Your task to perform on an android device: turn off notifications in google photos Image 0: 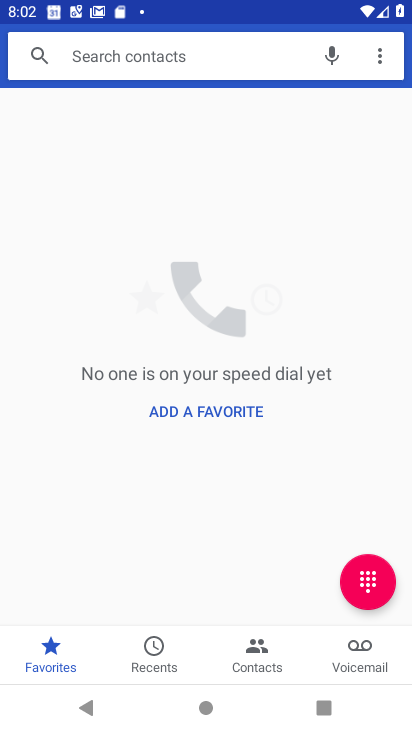
Step 0: drag from (222, 414) to (290, 196)
Your task to perform on an android device: turn off notifications in google photos Image 1: 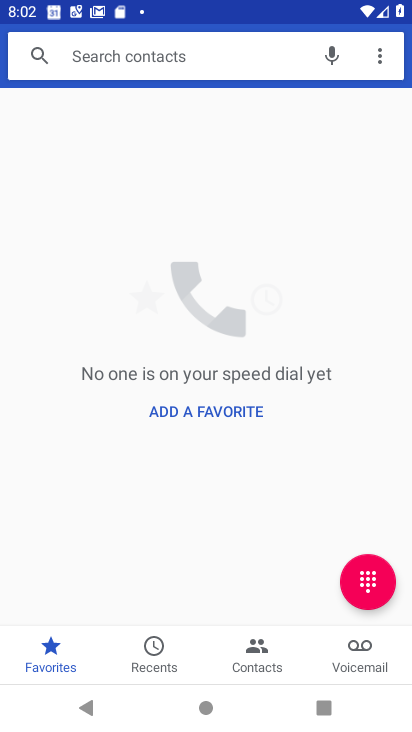
Step 1: press home button
Your task to perform on an android device: turn off notifications in google photos Image 2: 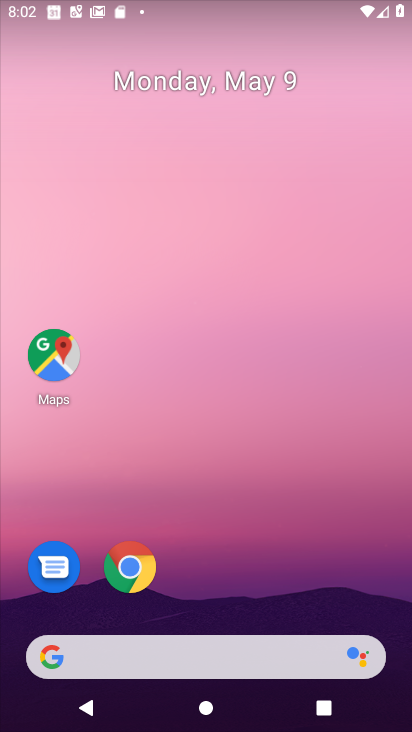
Step 2: drag from (202, 598) to (278, 253)
Your task to perform on an android device: turn off notifications in google photos Image 3: 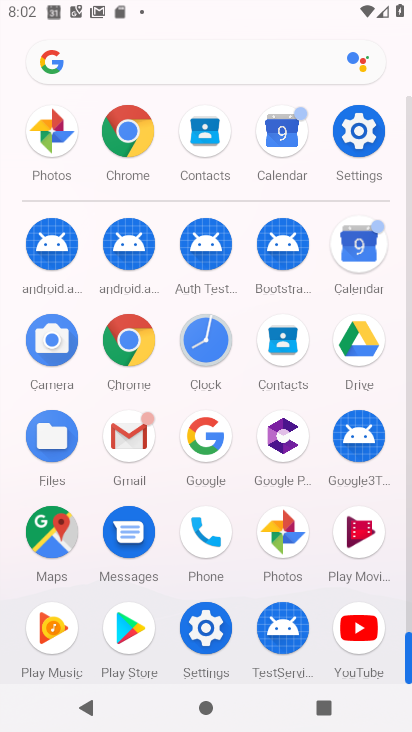
Step 3: click (284, 531)
Your task to perform on an android device: turn off notifications in google photos Image 4: 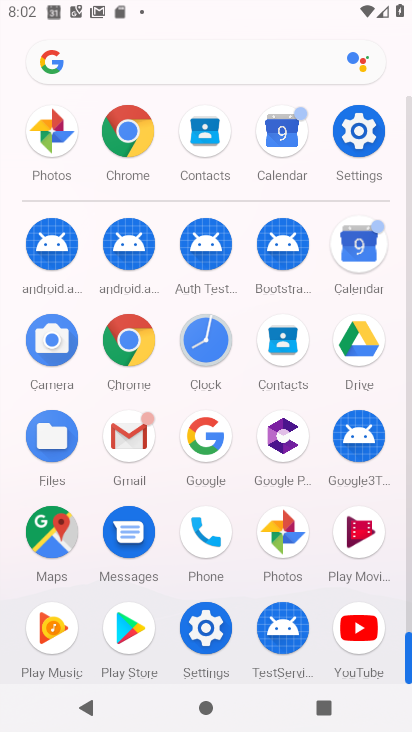
Step 4: click (284, 531)
Your task to perform on an android device: turn off notifications in google photos Image 5: 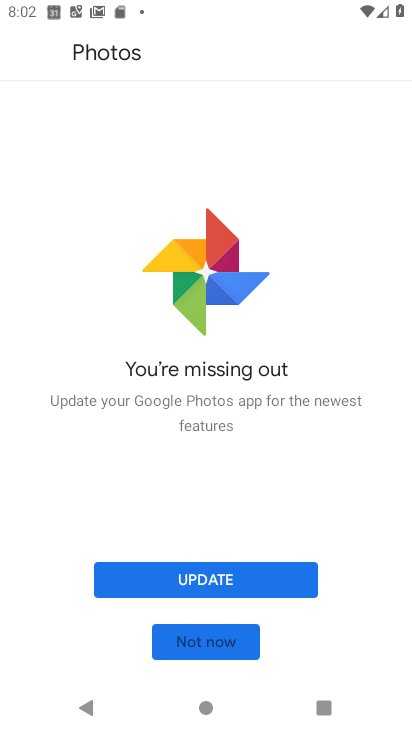
Step 5: press home button
Your task to perform on an android device: turn off notifications in google photos Image 6: 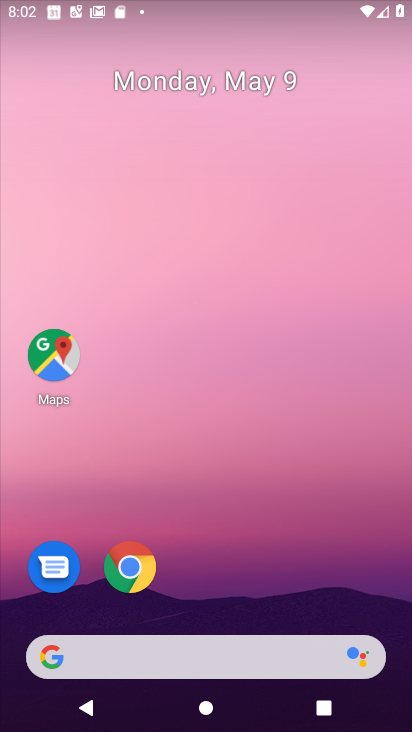
Step 6: drag from (227, 622) to (247, 191)
Your task to perform on an android device: turn off notifications in google photos Image 7: 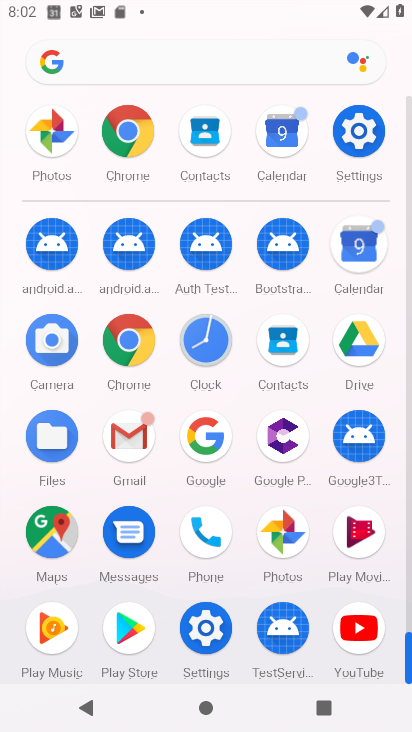
Step 7: click (273, 541)
Your task to perform on an android device: turn off notifications in google photos Image 8: 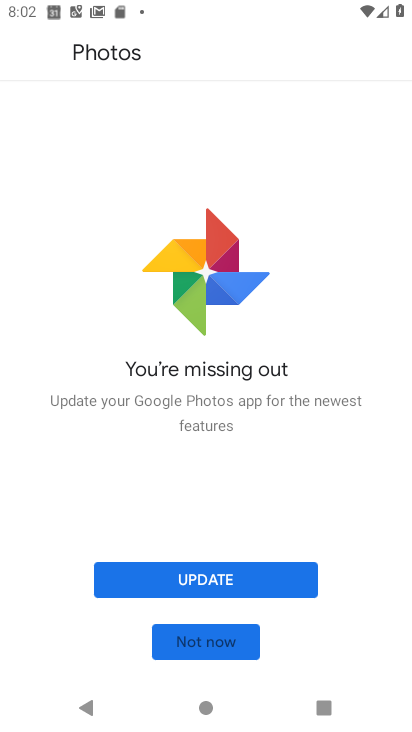
Step 8: click (203, 641)
Your task to perform on an android device: turn off notifications in google photos Image 9: 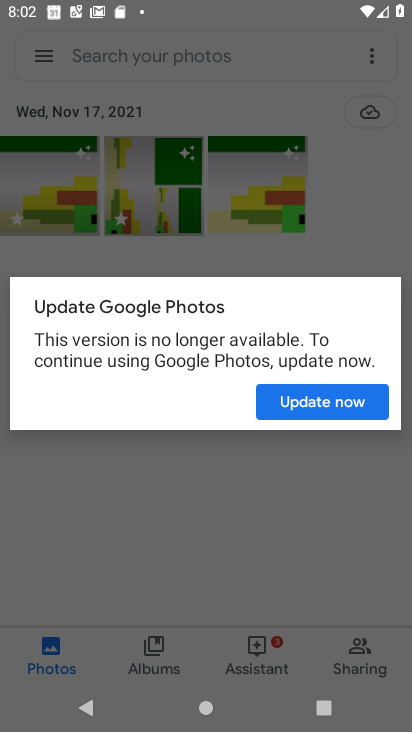
Step 9: click (16, 57)
Your task to perform on an android device: turn off notifications in google photos Image 10: 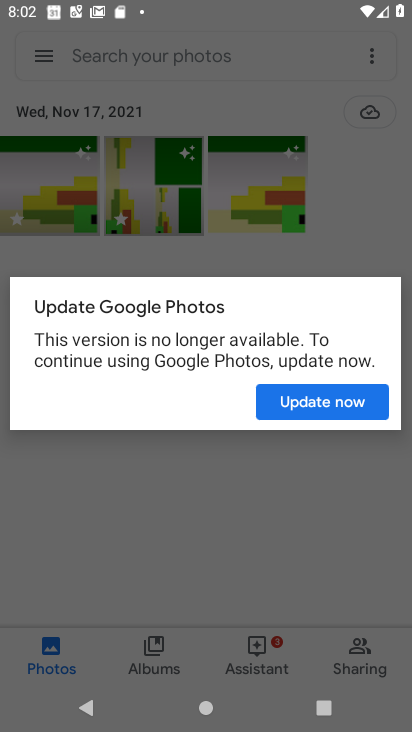
Step 10: click (23, 58)
Your task to perform on an android device: turn off notifications in google photos Image 11: 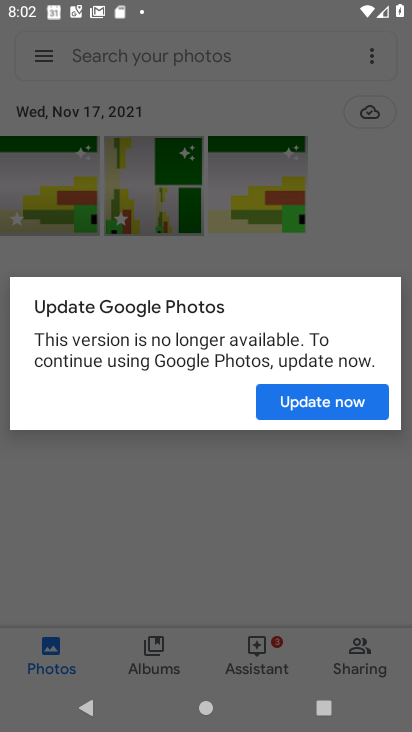
Step 11: click (28, 57)
Your task to perform on an android device: turn off notifications in google photos Image 12: 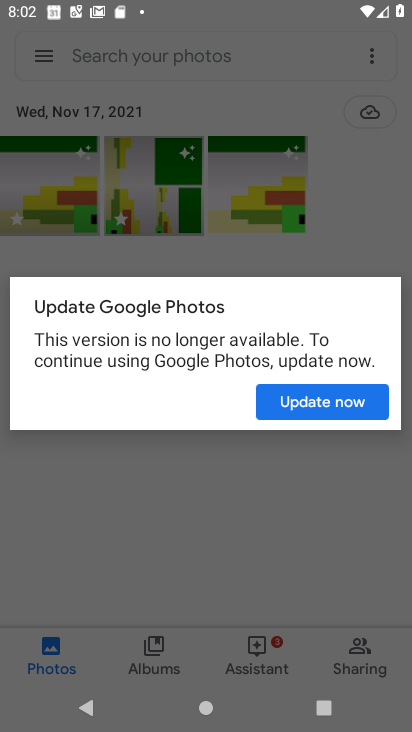
Step 12: click (27, 56)
Your task to perform on an android device: turn off notifications in google photos Image 13: 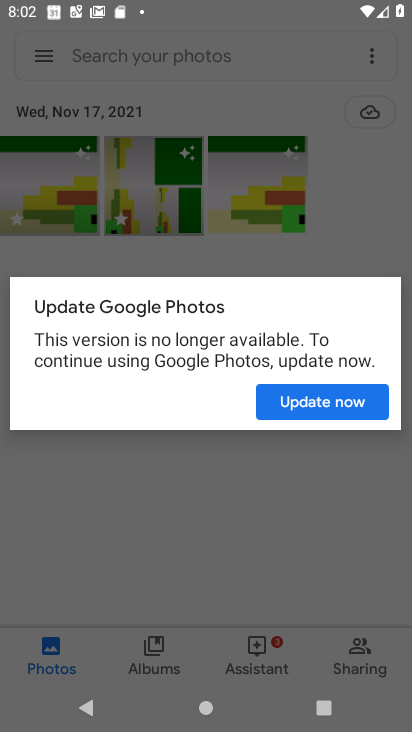
Step 13: task complete